Your task to perform on an android device: see tabs open on other devices in the chrome app Image 0: 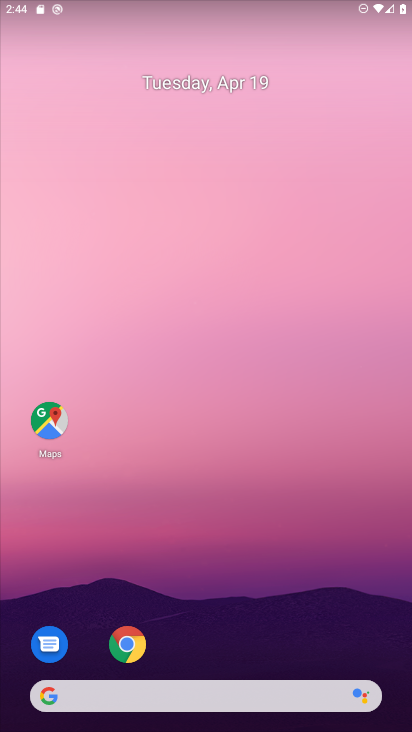
Step 0: click (132, 645)
Your task to perform on an android device: see tabs open on other devices in the chrome app Image 1: 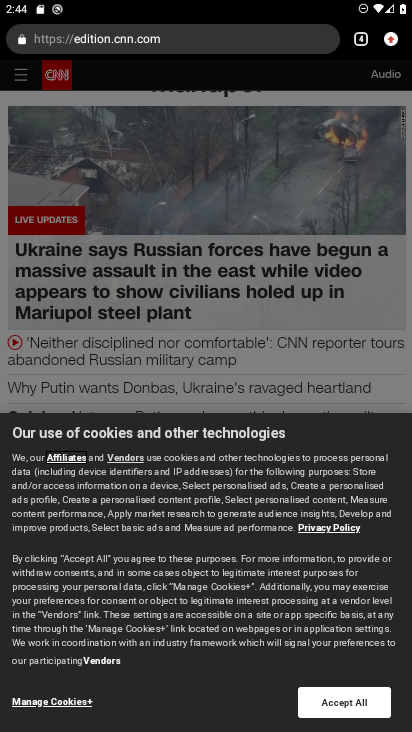
Step 1: drag from (377, 145) to (378, 228)
Your task to perform on an android device: see tabs open on other devices in the chrome app Image 2: 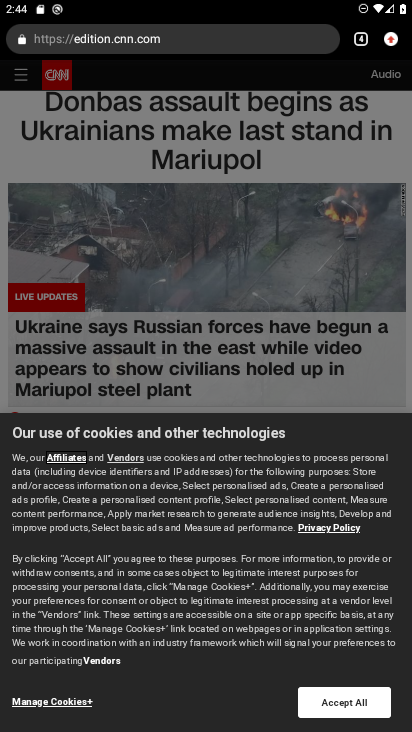
Step 2: click (388, 38)
Your task to perform on an android device: see tabs open on other devices in the chrome app Image 3: 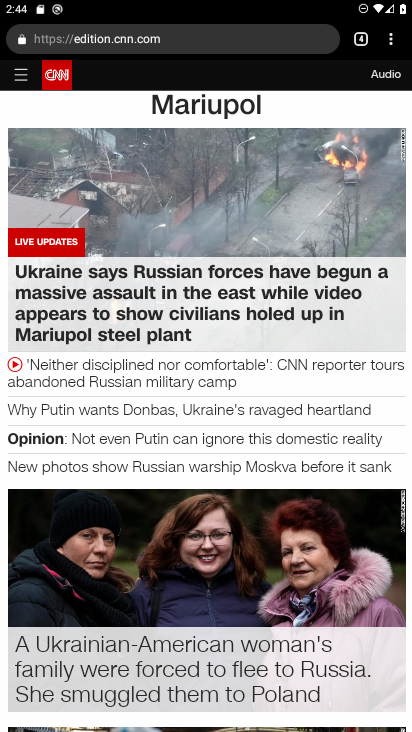
Step 3: click (391, 39)
Your task to perform on an android device: see tabs open on other devices in the chrome app Image 4: 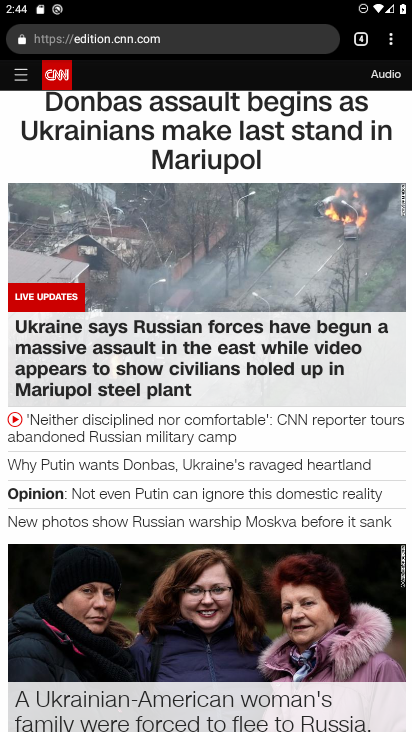
Step 4: click (393, 42)
Your task to perform on an android device: see tabs open on other devices in the chrome app Image 5: 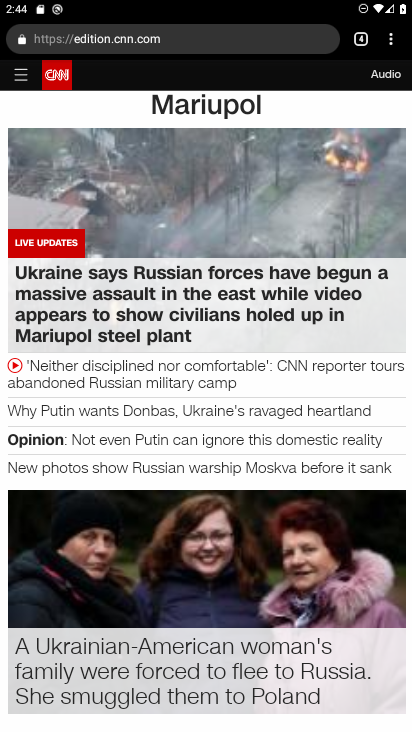
Step 5: click (391, 41)
Your task to perform on an android device: see tabs open on other devices in the chrome app Image 6: 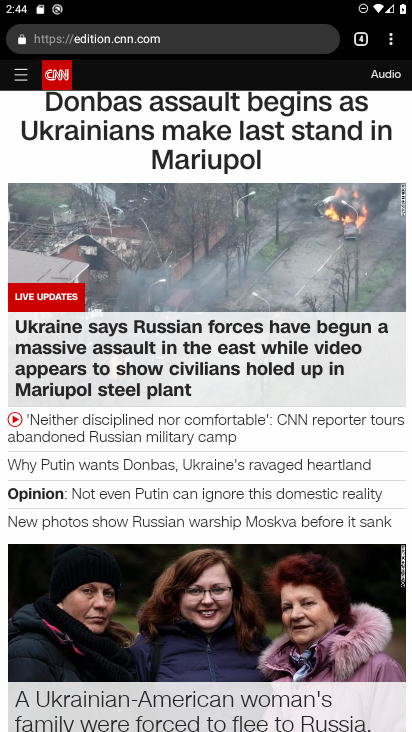
Step 6: click (391, 41)
Your task to perform on an android device: see tabs open on other devices in the chrome app Image 7: 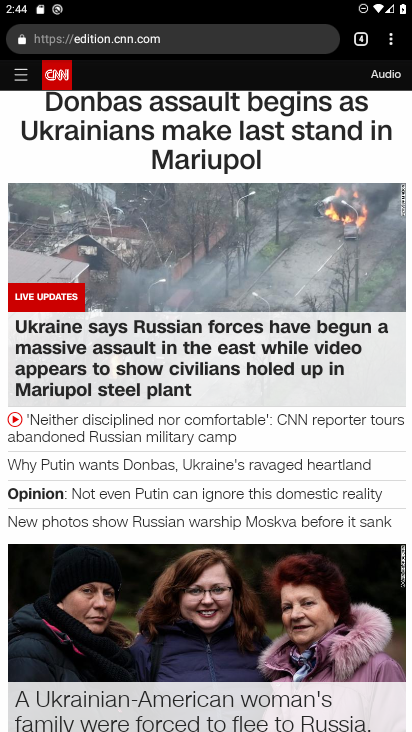
Step 7: click (394, 40)
Your task to perform on an android device: see tabs open on other devices in the chrome app Image 8: 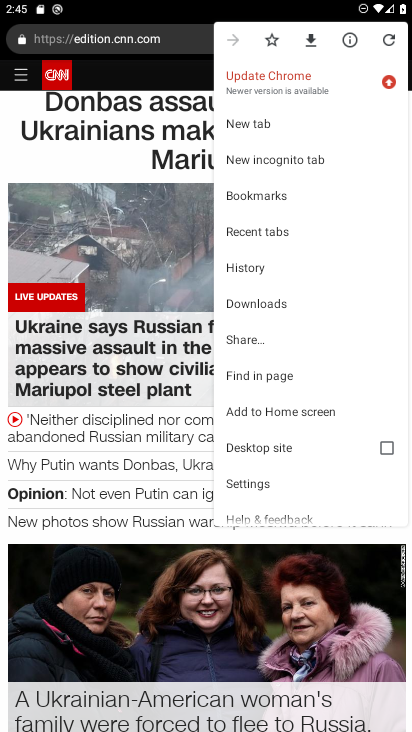
Step 8: click (250, 227)
Your task to perform on an android device: see tabs open on other devices in the chrome app Image 9: 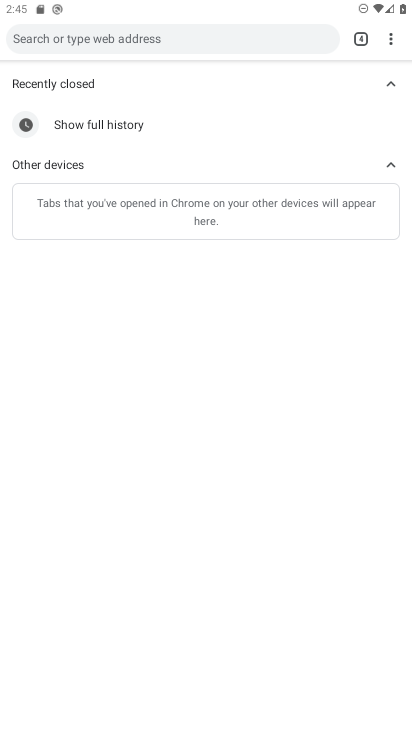
Step 9: click (390, 166)
Your task to perform on an android device: see tabs open on other devices in the chrome app Image 10: 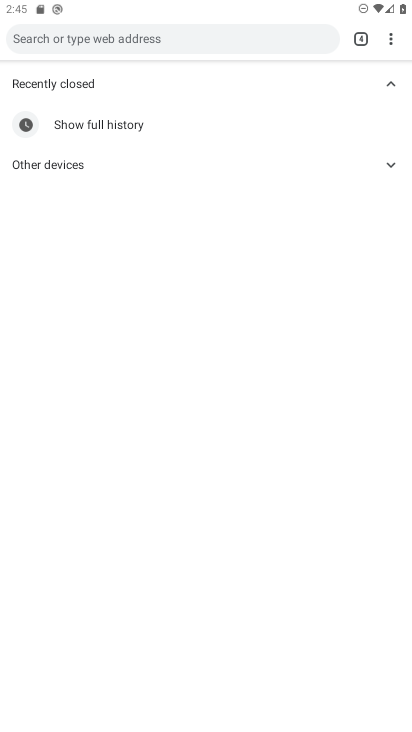
Step 10: click (387, 166)
Your task to perform on an android device: see tabs open on other devices in the chrome app Image 11: 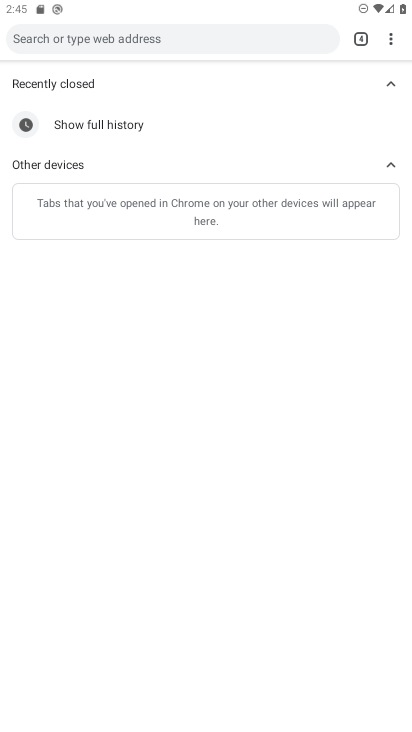
Step 11: task complete